Your task to perform on an android device: move an email to a new category in the gmail app Image 0: 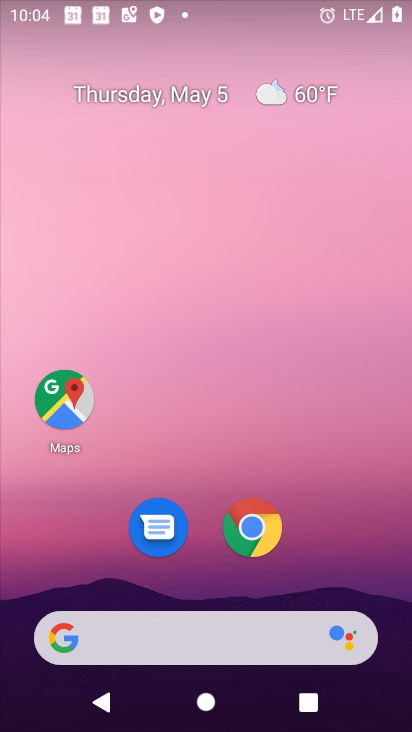
Step 0: drag from (262, 700) to (291, 118)
Your task to perform on an android device: move an email to a new category in the gmail app Image 1: 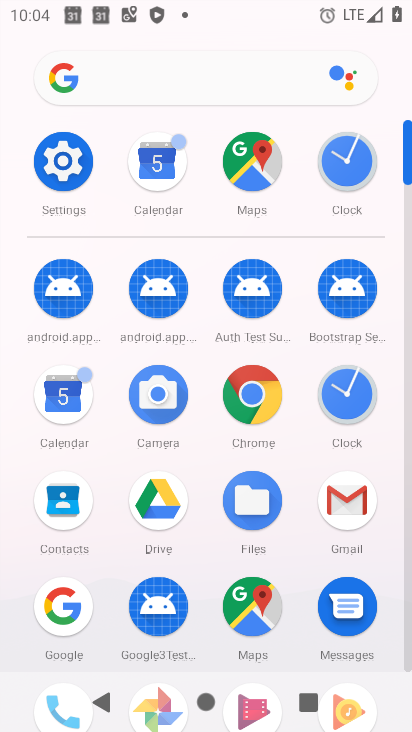
Step 1: click (346, 502)
Your task to perform on an android device: move an email to a new category in the gmail app Image 2: 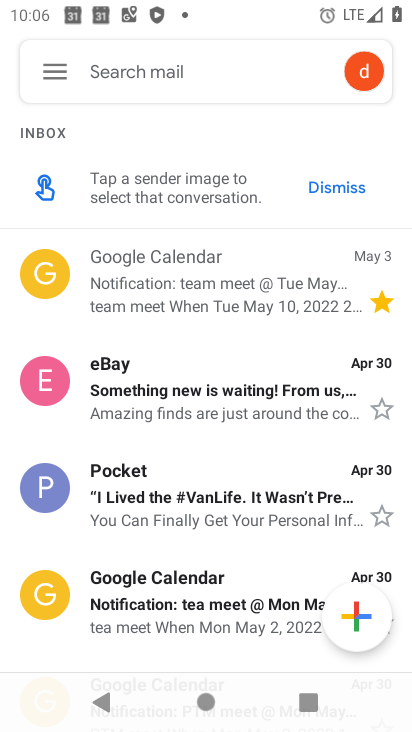
Step 2: click (134, 282)
Your task to perform on an android device: move an email to a new category in the gmail app Image 3: 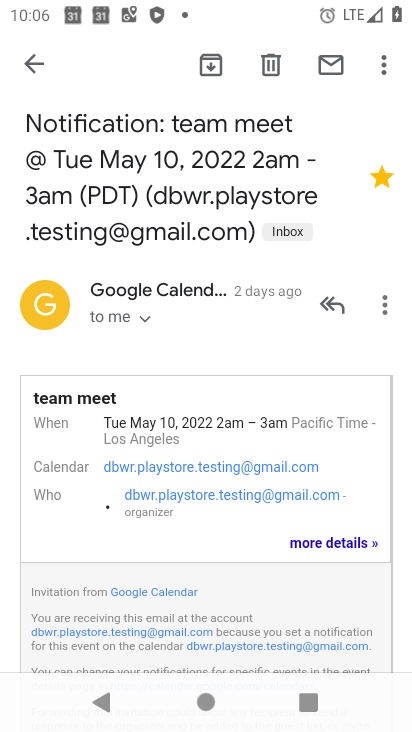
Step 3: click (388, 69)
Your task to perform on an android device: move an email to a new category in the gmail app Image 4: 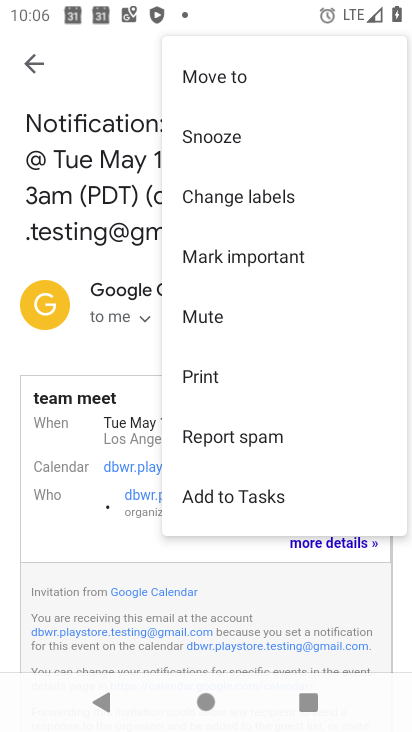
Step 4: drag from (230, 199) to (229, 78)
Your task to perform on an android device: move an email to a new category in the gmail app Image 5: 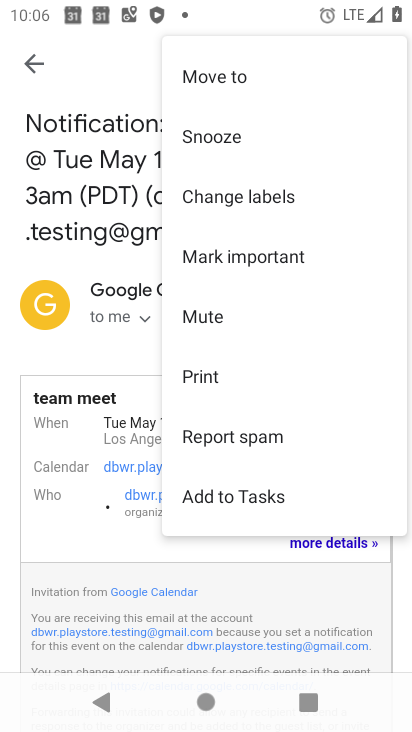
Step 5: click (229, 78)
Your task to perform on an android device: move an email to a new category in the gmail app Image 6: 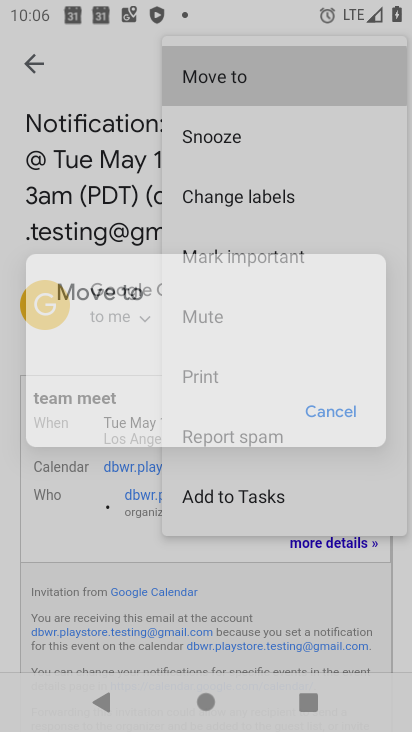
Step 6: click (229, 78)
Your task to perform on an android device: move an email to a new category in the gmail app Image 7: 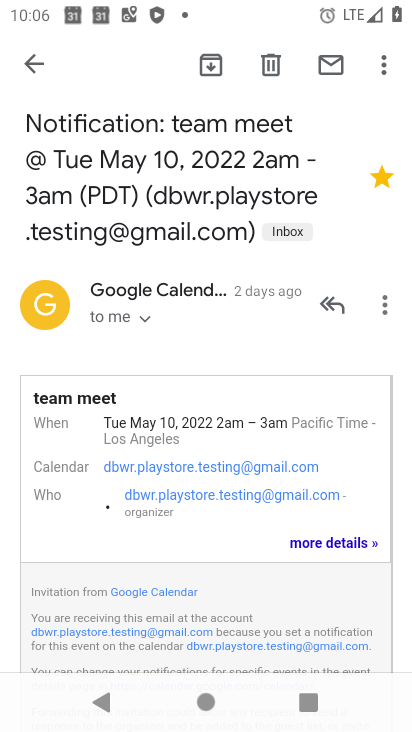
Step 7: click (391, 55)
Your task to perform on an android device: move an email to a new category in the gmail app Image 8: 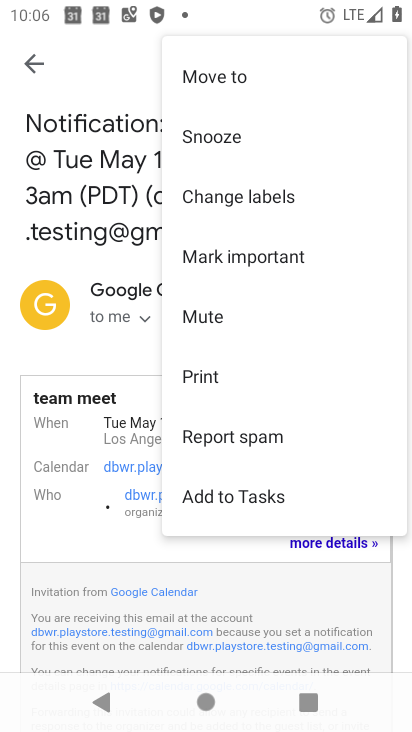
Step 8: click (275, 79)
Your task to perform on an android device: move an email to a new category in the gmail app Image 9: 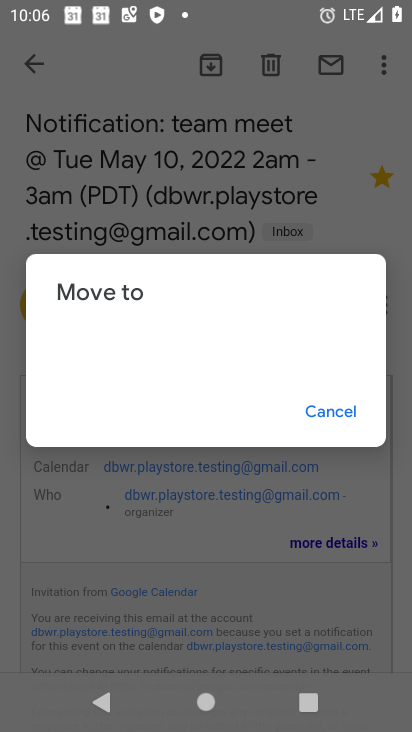
Step 9: task complete